Your task to perform on an android device: Open the phone app and click the voicemail tab. Image 0: 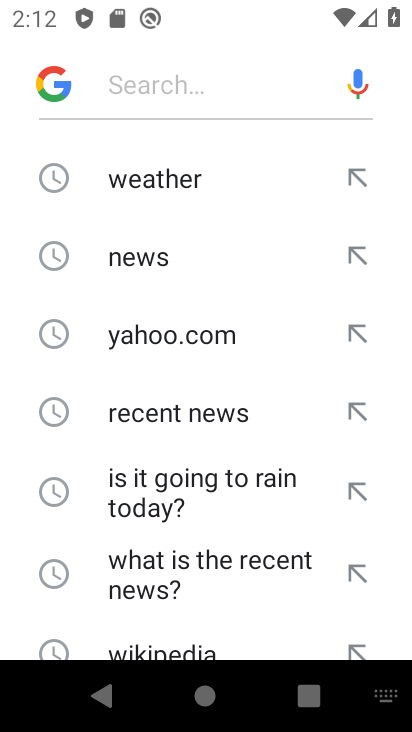
Step 0: press back button
Your task to perform on an android device: Open the phone app and click the voicemail tab. Image 1: 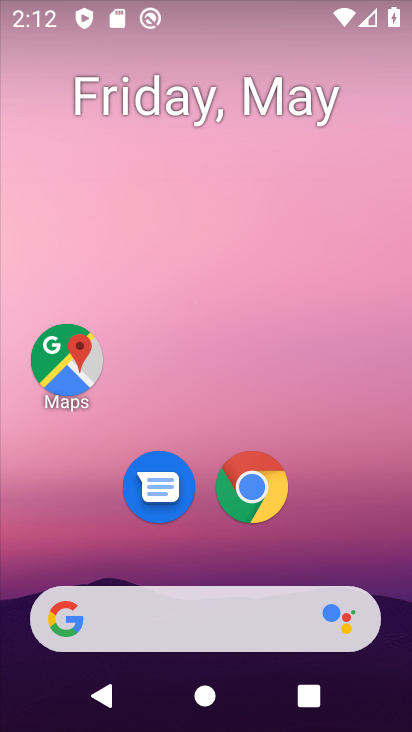
Step 1: drag from (202, 508) to (237, 116)
Your task to perform on an android device: Open the phone app and click the voicemail tab. Image 2: 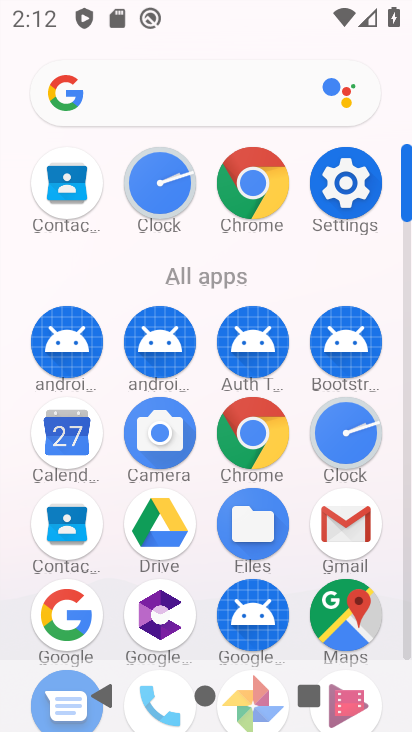
Step 2: drag from (184, 598) to (228, 139)
Your task to perform on an android device: Open the phone app and click the voicemail tab. Image 3: 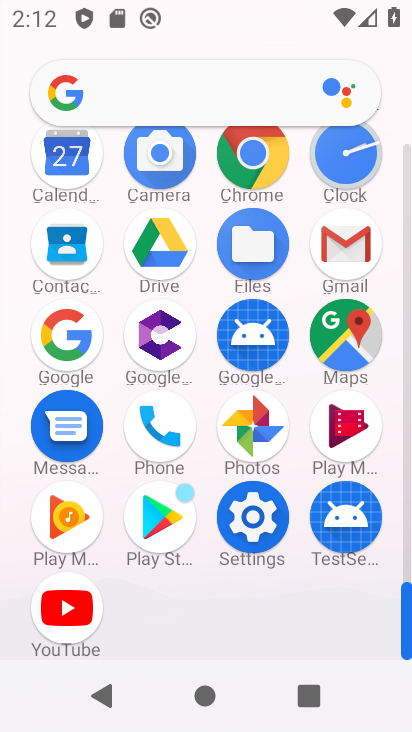
Step 3: click (146, 428)
Your task to perform on an android device: Open the phone app and click the voicemail tab. Image 4: 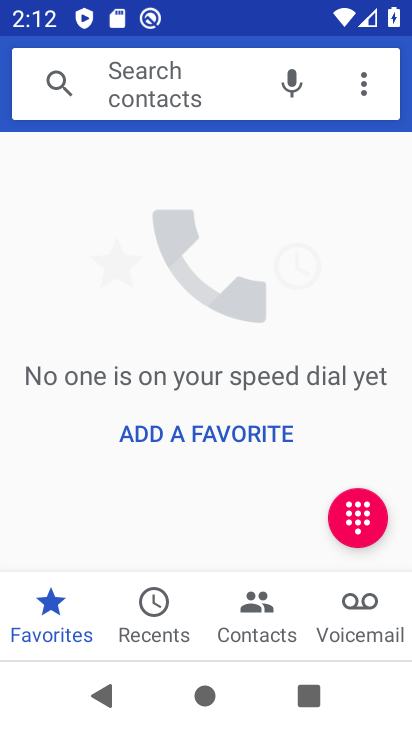
Step 4: click (357, 613)
Your task to perform on an android device: Open the phone app and click the voicemail tab. Image 5: 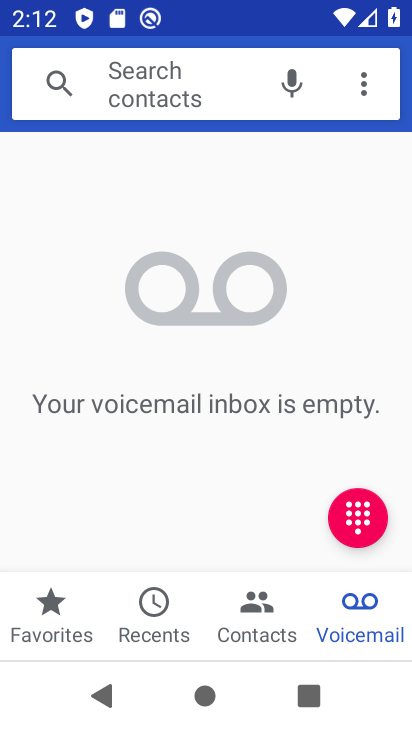
Step 5: task complete